Your task to perform on an android device: set the timer Image 0: 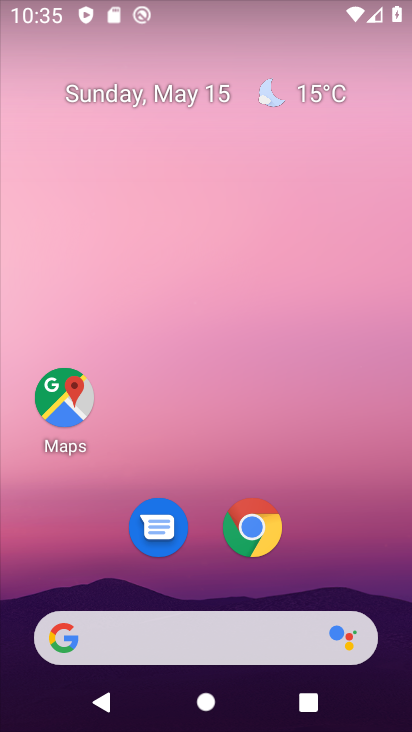
Step 0: drag from (349, 520) to (232, 76)
Your task to perform on an android device: set the timer Image 1: 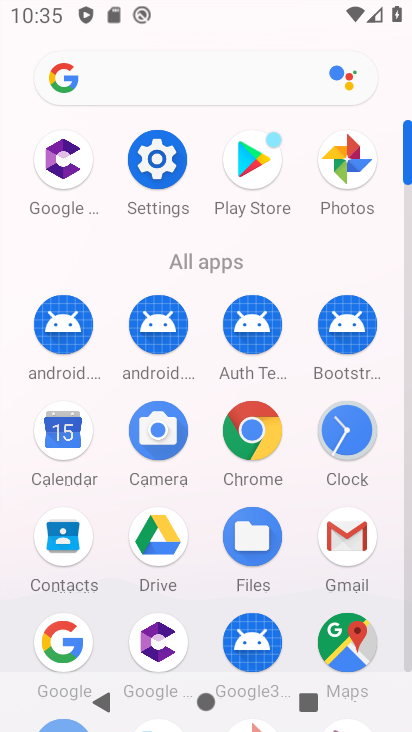
Step 1: drag from (205, 519) to (204, 303)
Your task to perform on an android device: set the timer Image 2: 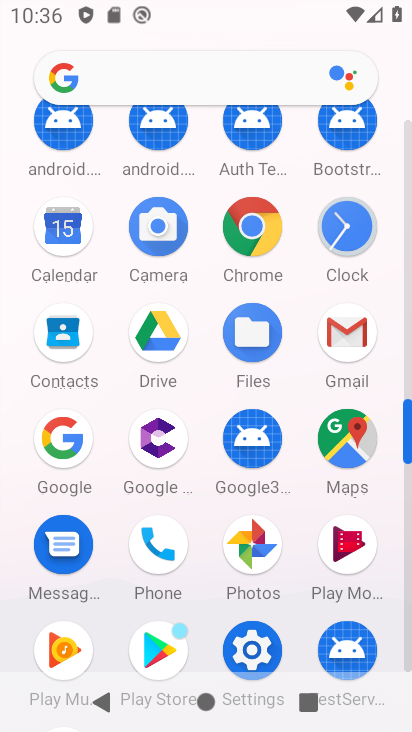
Step 2: click (349, 226)
Your task to perform on an android device: set the timer Image 3: 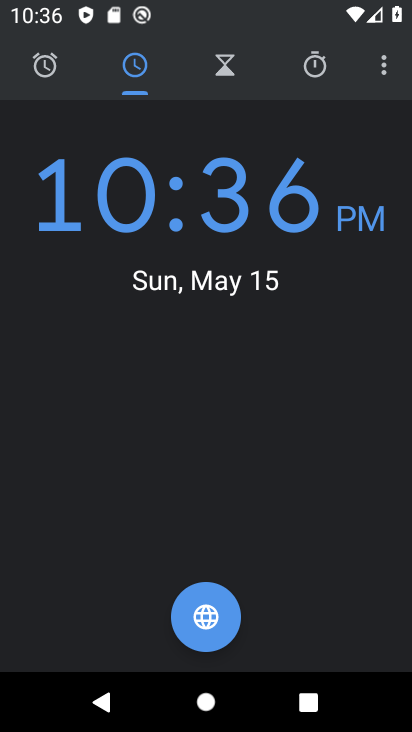
Step 3: click (384, 66)
Your task to perform on an android device: set the timer Image 4: 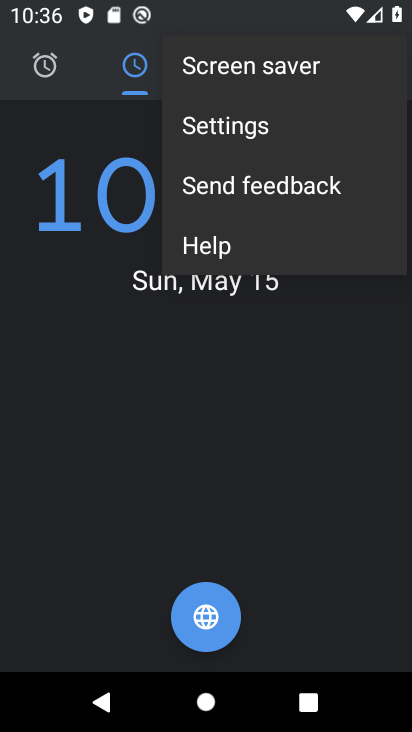
Step 4: click (329, 379)
Your task to perform on an android device: set the timer Image 5: 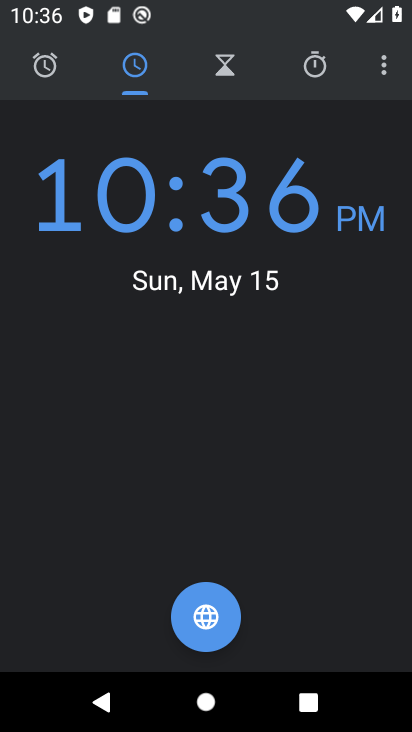
Step 5: click (225, 69)
Your task to perform on an android device: set the timer Image 6: 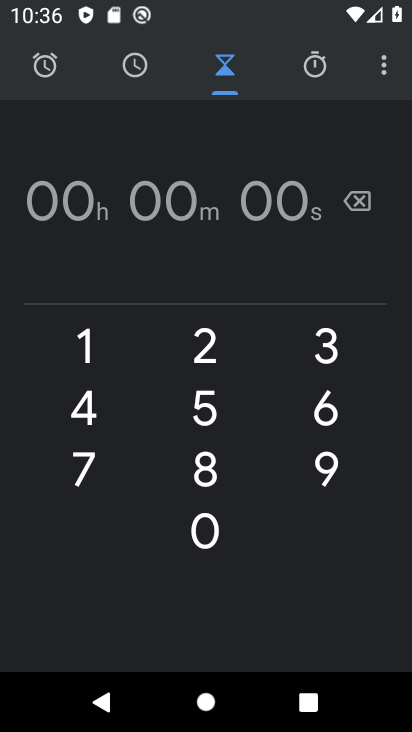
Step 6: type "123"
Your task to perform on an android device: set the timer Image 7: 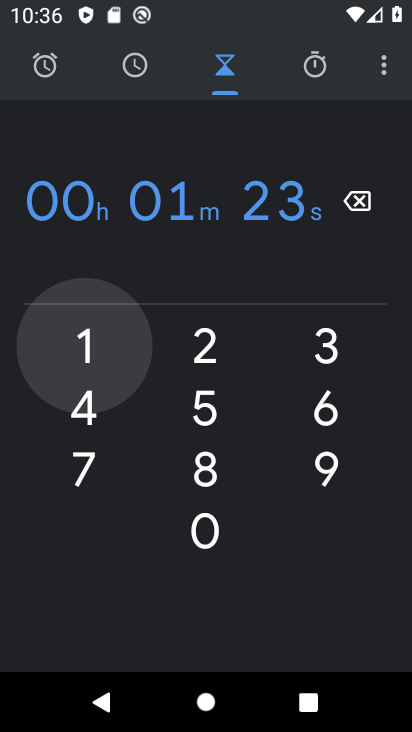
Step 7: type ""
Your task to perform on an android device: set the timer Image 8: 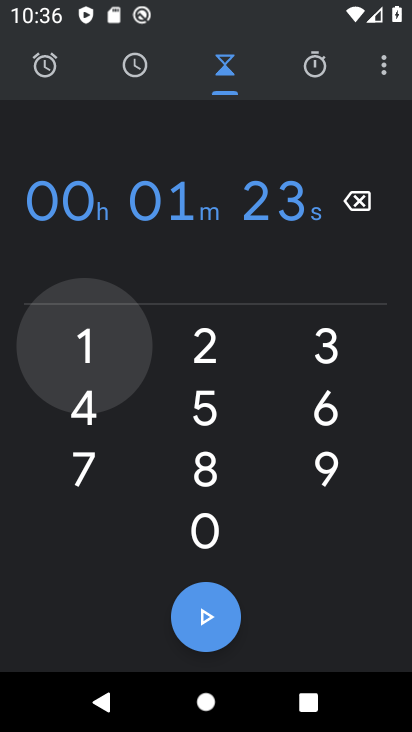
Step 8: click (210, 617)
Your task to perform on an android device: set the timer Image 9: 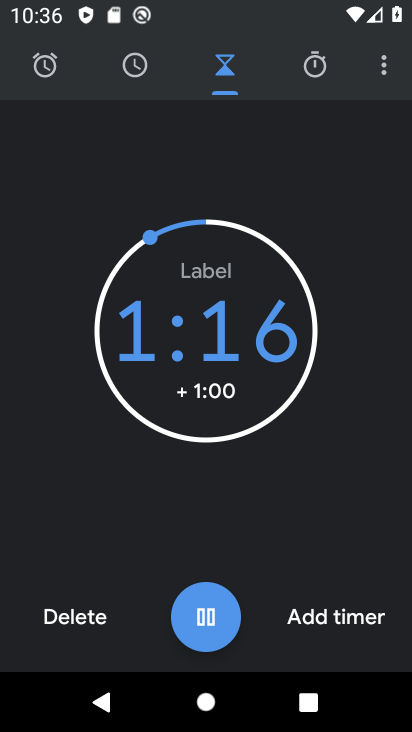
Step 9: click (208, 615)
Your task to perform on an android device: set the timer Image 10: 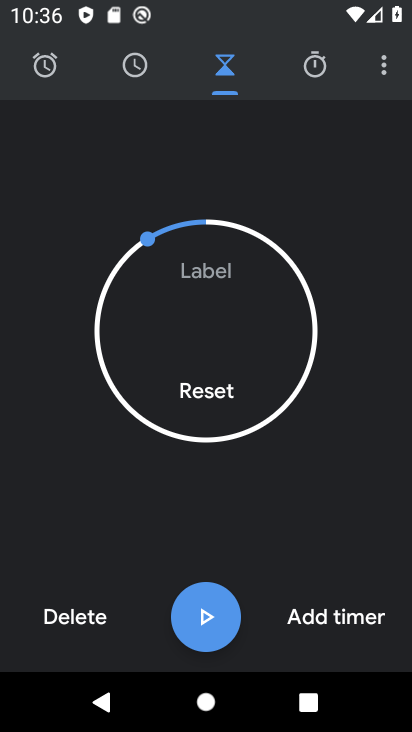
Step 10: task complete